Your task to perform on an android device: change the clock display to digital Image 0: 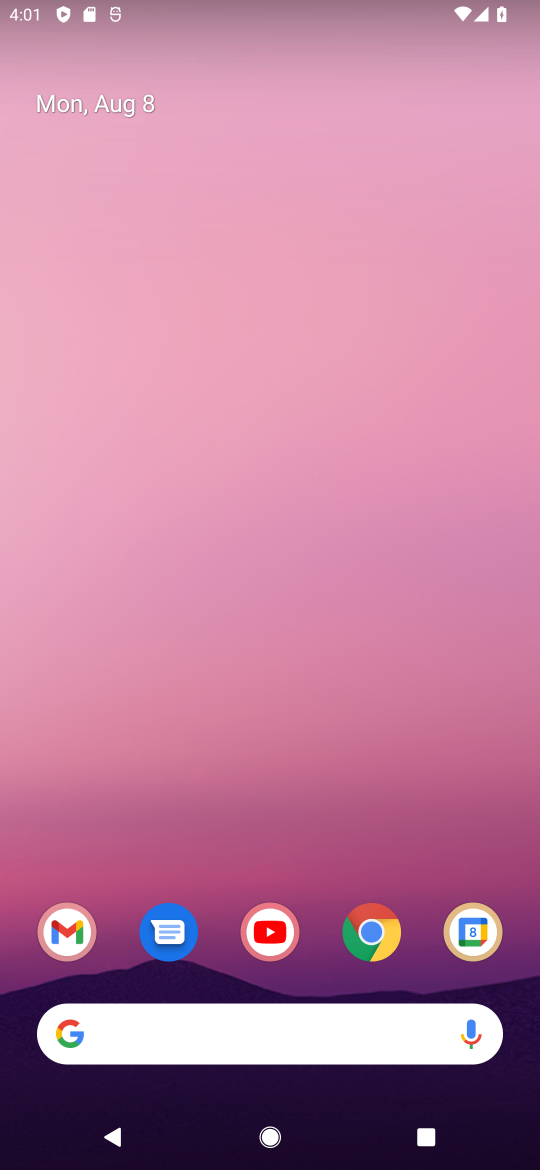
Step 0: drag from (177, 883) to (263, 467)
Your task to perform on an android device: change the clock display to digital Image 1: 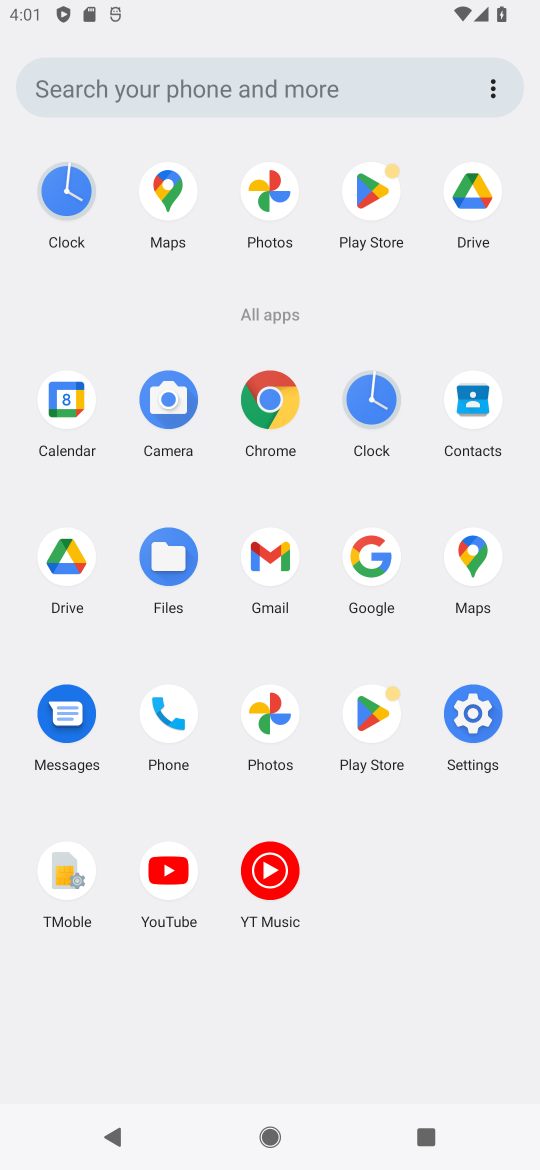
Step 1: click (358, 403)
Your task to perform on an android device: change the clock display to digital Image 2: 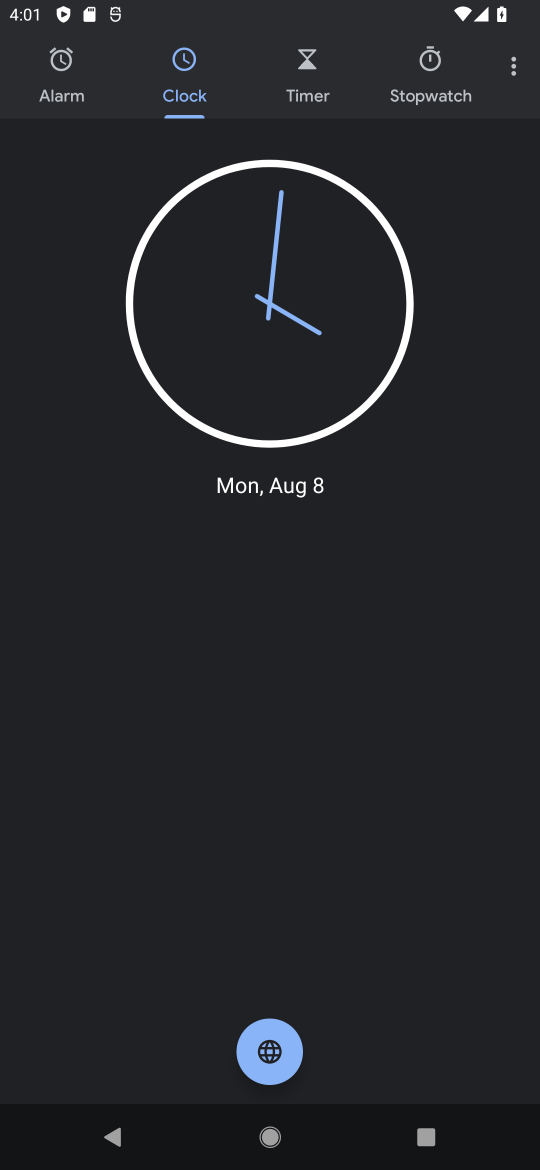
Step 2: click (526, 68)
Your task to perform on an android device: change the clock display to digital Image 3: 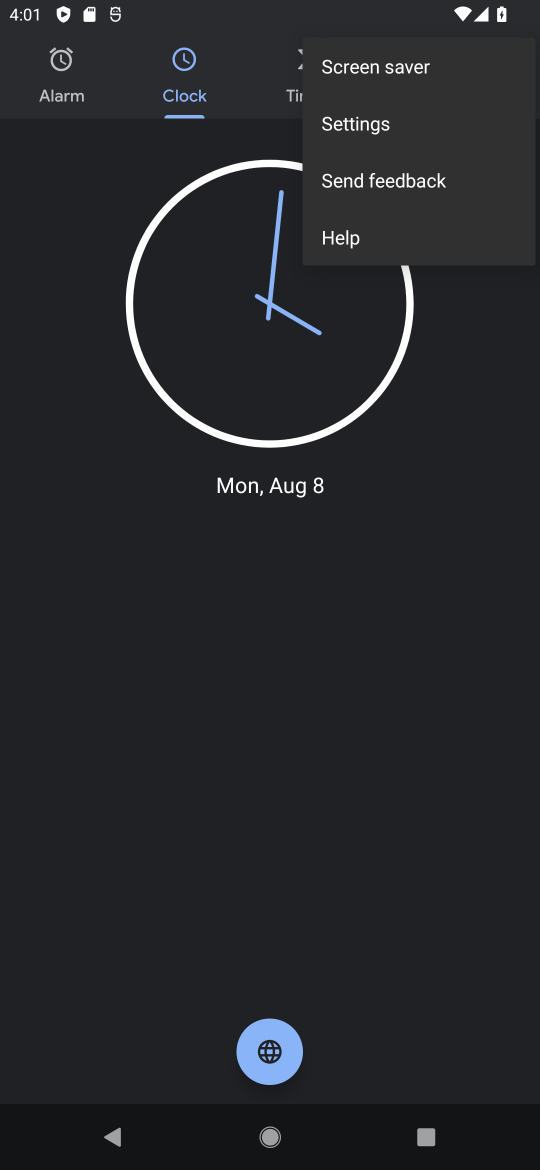
Step 3: click (415, 127)
Your task to perform on an android device: change the clock display to digital Image 4: 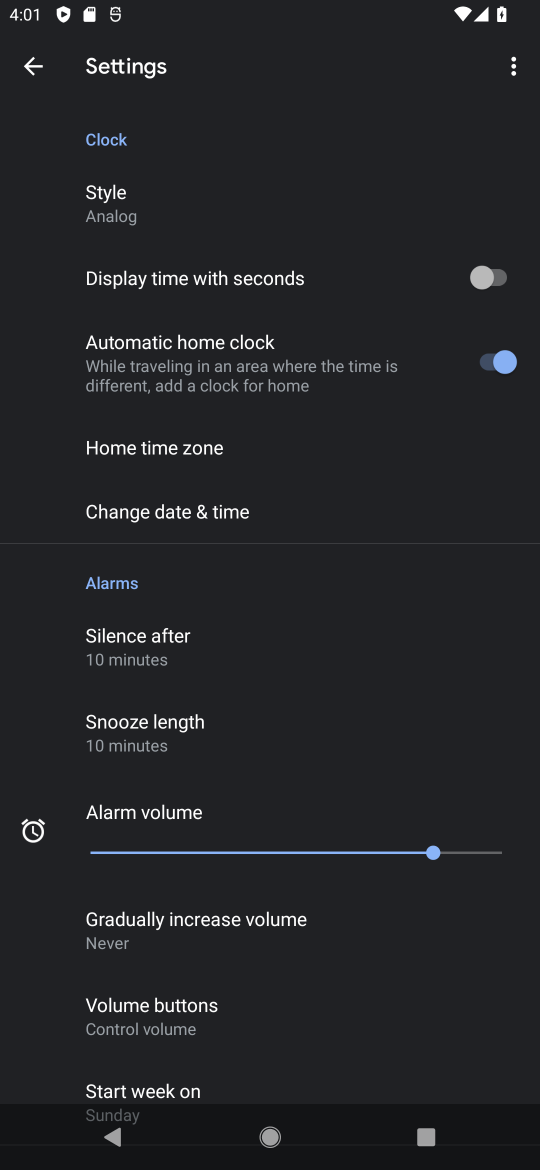
Step 4: click (151, 192)
Your task to perform on an android device: change the clock display to digital Image 5: 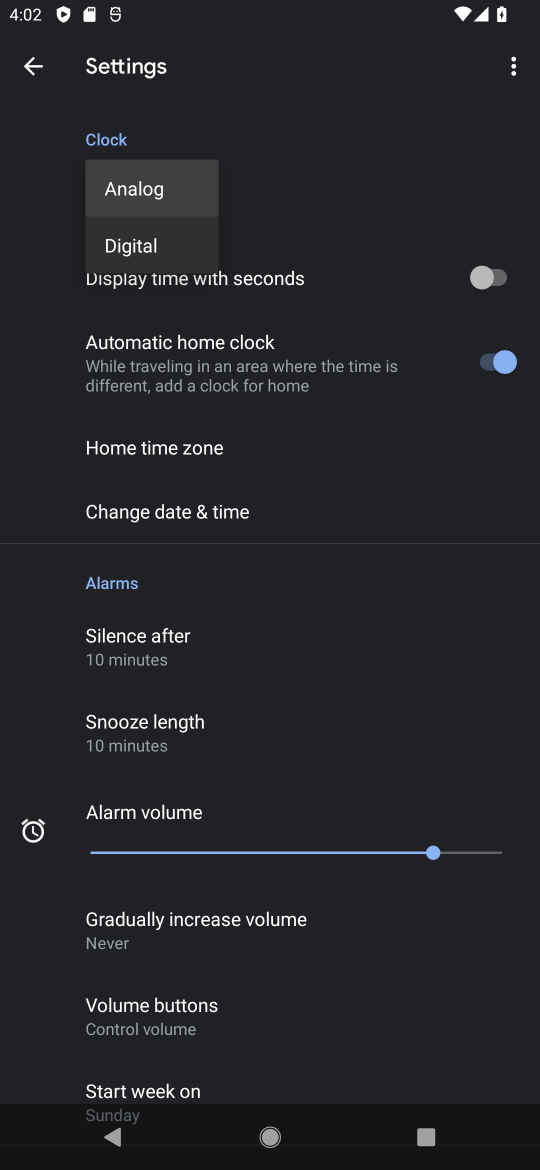
Step 5: click (127, 247)
Your task to perform on an android device: change the clock display to digital Image 6: 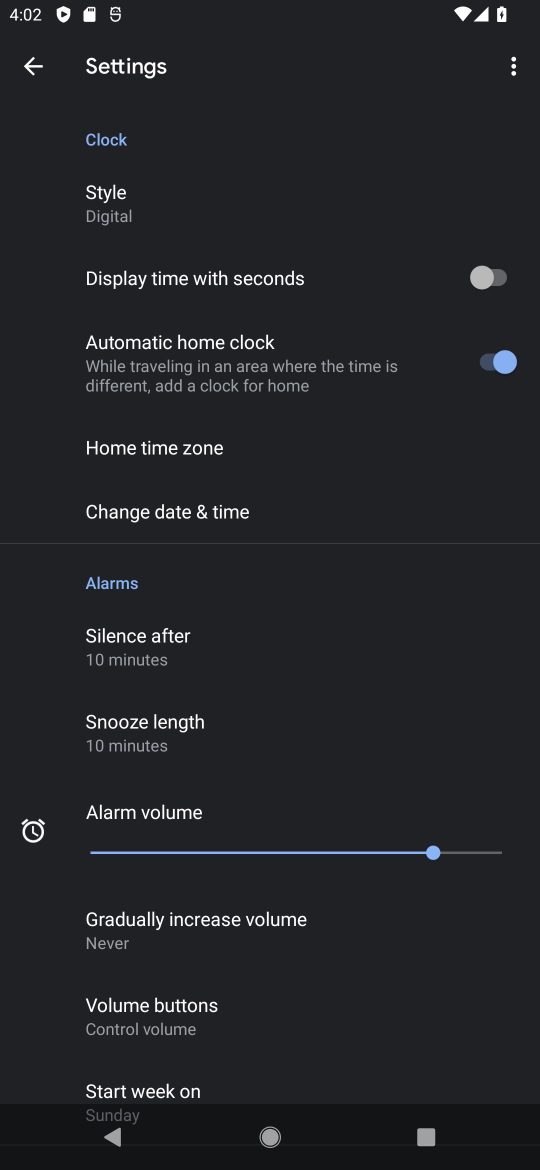
Step 6: task complete